Your task to perform on an android device: Open the calendar app, open the side menu, and click the "Day" option Image 0: 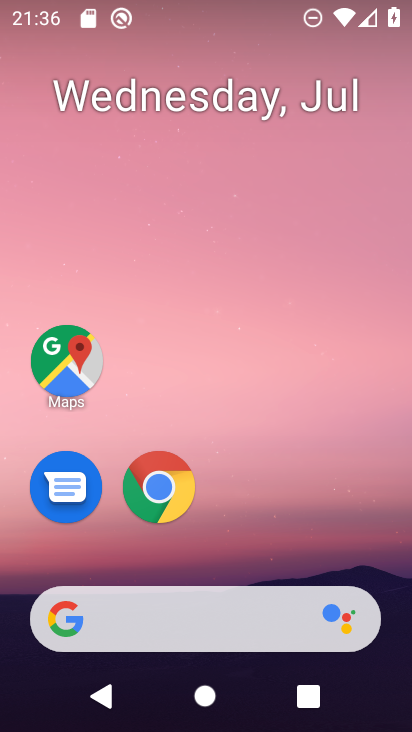
Step 0: drag from (357, 554) to (356, 131)
Your task to perform on an android device: Open the calendar app, open the side menu, and click the "Day" option Image 1: 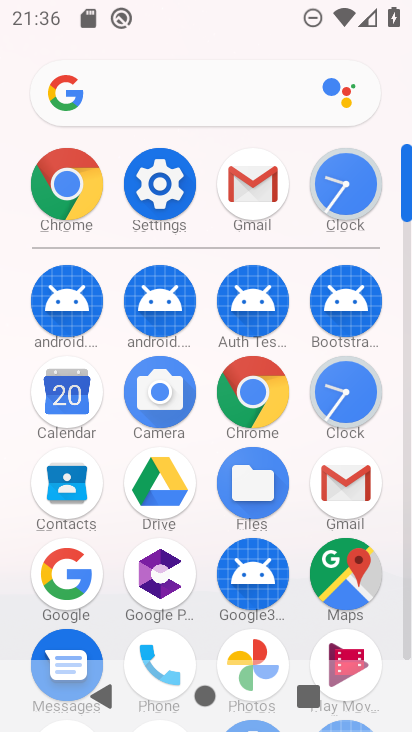
Step 1: click (77, 404)
Your task to perform on an android device: Open the calendar app, open the side menu, and click the "Day" option Image 2: 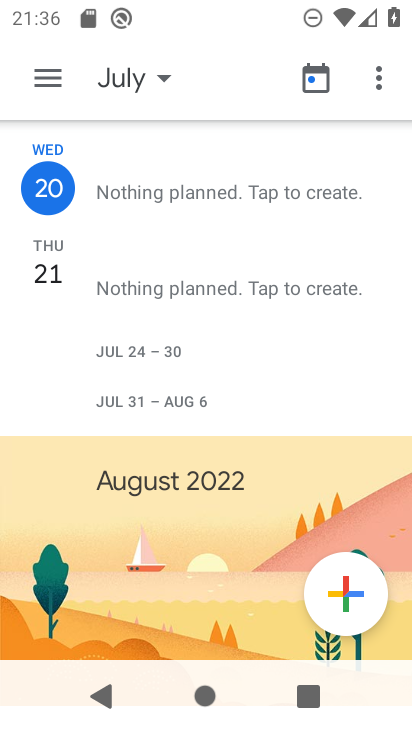
Step 2: click (50, 70)
Your task to perform on an android device: Open the calendar app, open the side menu, and click the "Day" option Image 3: 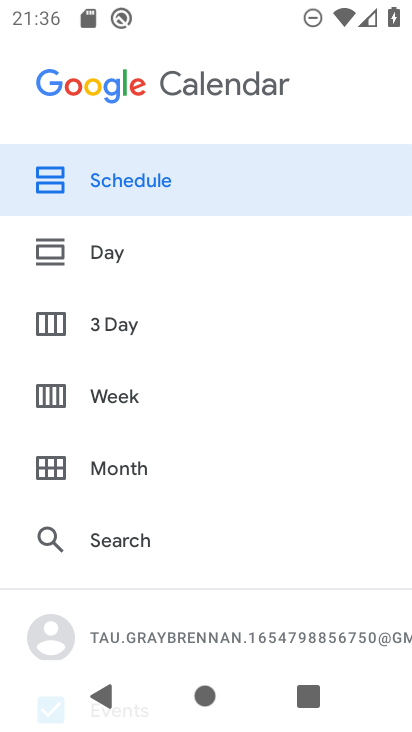
Step 3: click (101, 259)
Your task to perform on an android device: Open the calendar app, open the side menu, and click the "Day" option Image 4: 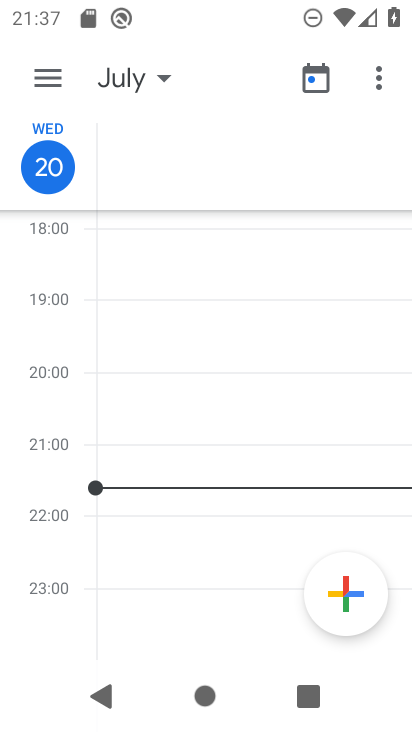
Step 4: press home button
Your task to perform on an android device: Open the calendar app, open the side menu, and click the "Day" option Image 5: 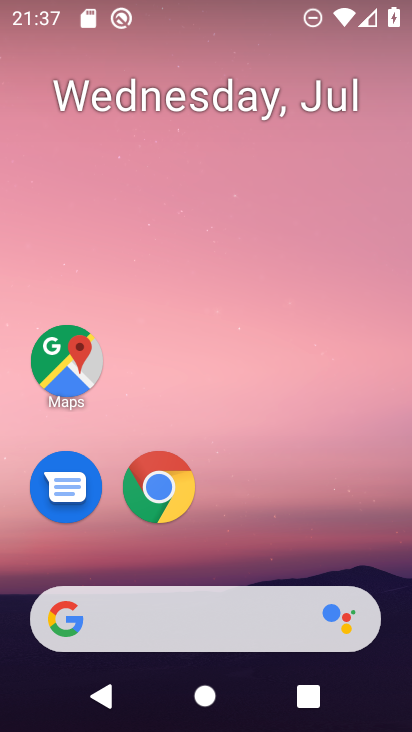
Step 5: drag from (340, 554) to (339, 190)
Your task to perform on an android device: Open the calendar app, open the side menu, and click the "Day" option Image 6: 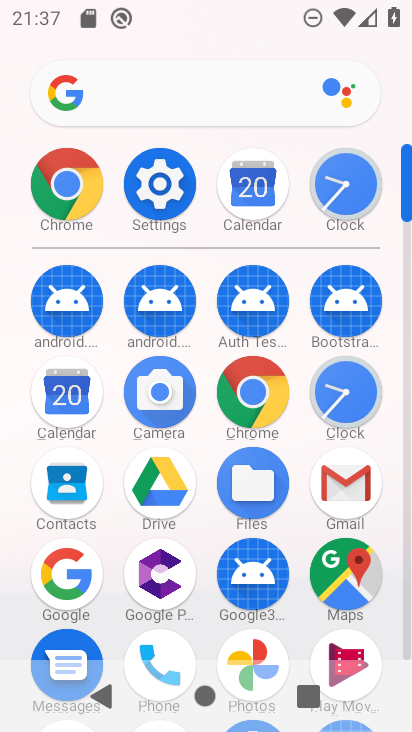
Step 6: click (73, 391)
Your task to perform on an android device: Open the calendar app, open the side menu, and click the "Day" option Image 7: 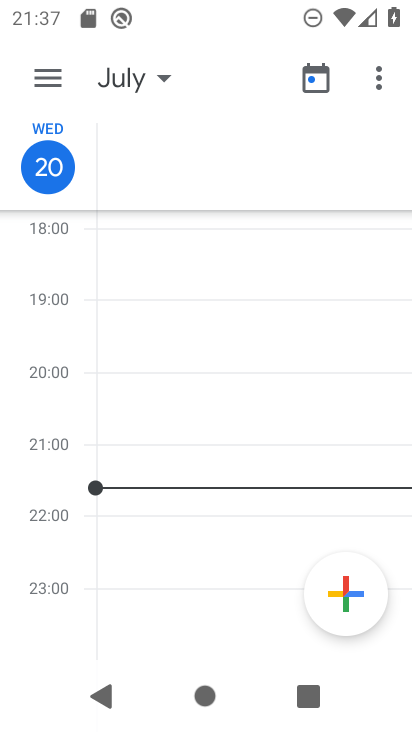
Step 7: click (52, 74)
Your task to perform on an android device: Open the calendar app, open the side menu, and click the "Day" option Image 8: 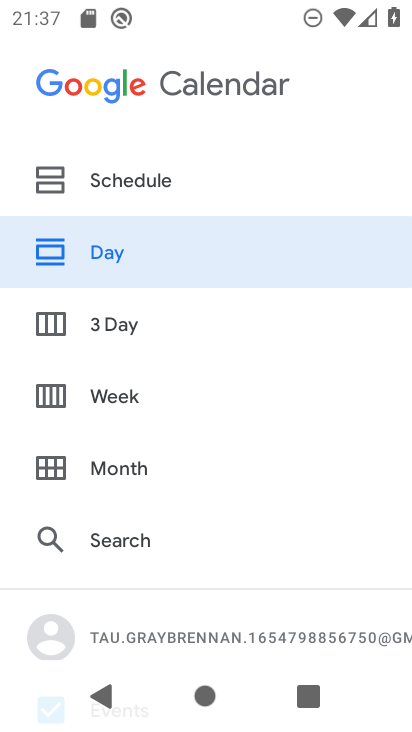
Step 8: task complete